Your task to perform on an android device: Do I have any events this weekend? Image 0: 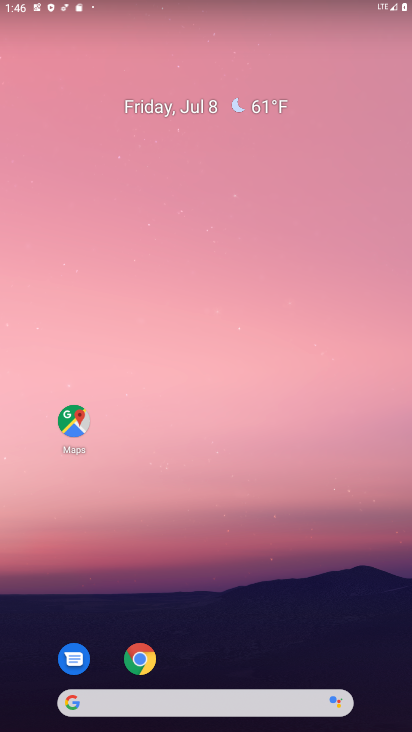
Step 0: drag from (221, 672) to (176, 128)
Your task to perform on an android device: Do I have any events this weekend? Image 1: 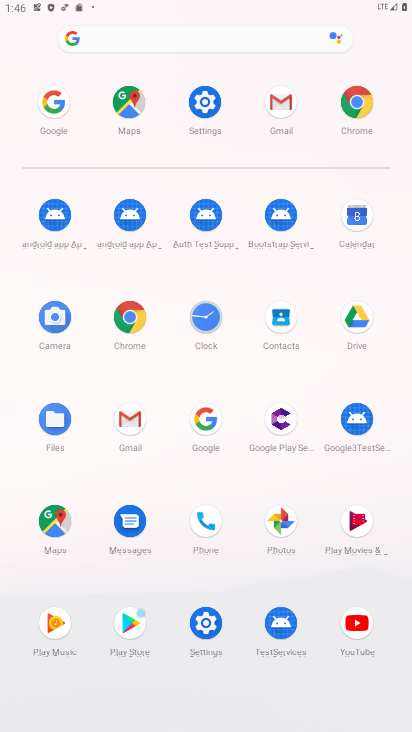
Step 1: click (350, 217)
Your task to perform on an android device: Do I have any events this weekend? Image 2: 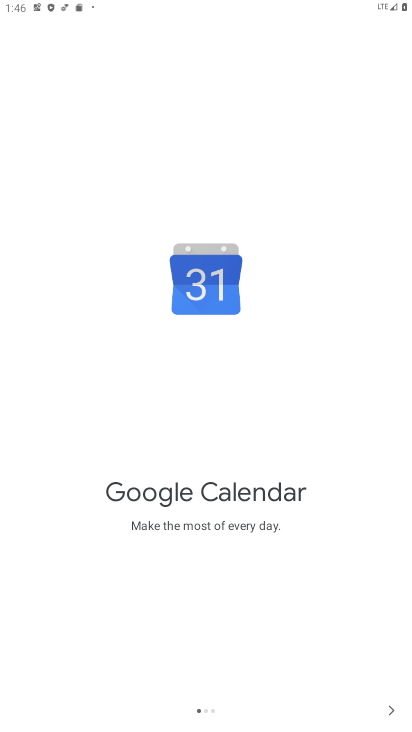
Step 2: click (391, 707)
Your task to perform on an android device: Do I have any events this weekend? Image 3: 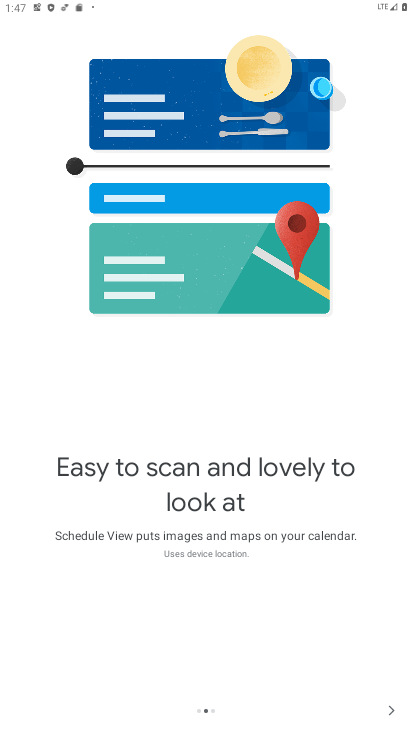
Step 3: click (392, 705)
Your task to perform on an android device: Do I have any events this weekend? Image 4: 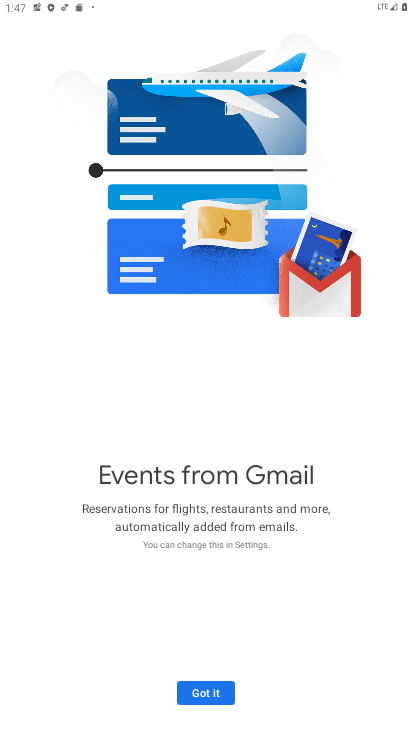
Step 4: click (206, 690)
Your task to perform on an android device: Do I have any events this weekend? Image 5: 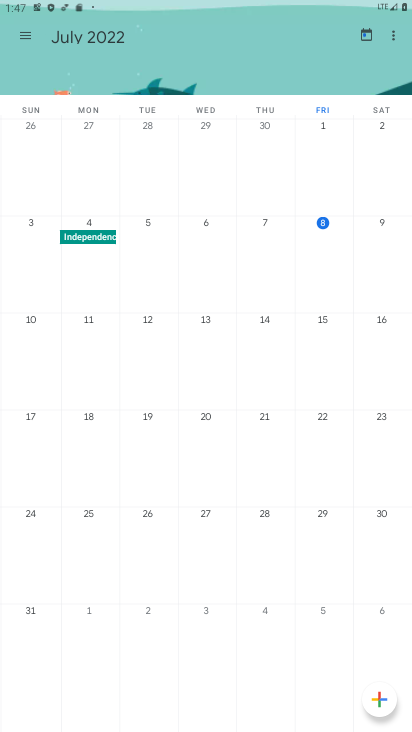
Step 5: click (17, 35)
Your task to perform on an android device: Do I have any events this weekend? Image 6: 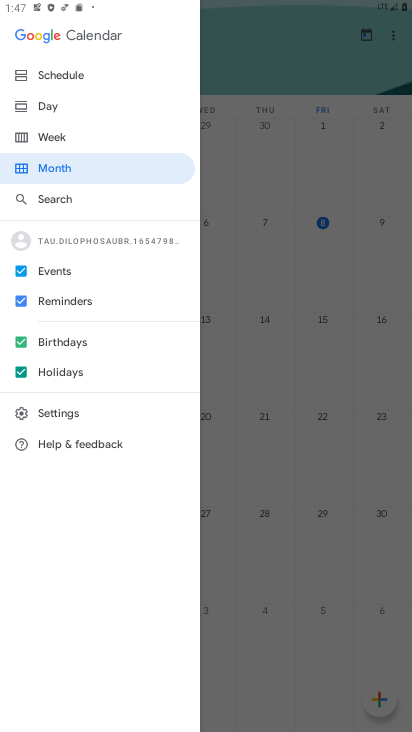
Step 6: click (41, 131)
Your task to perform on an android device: Do I have any events this weekend? Image 7: 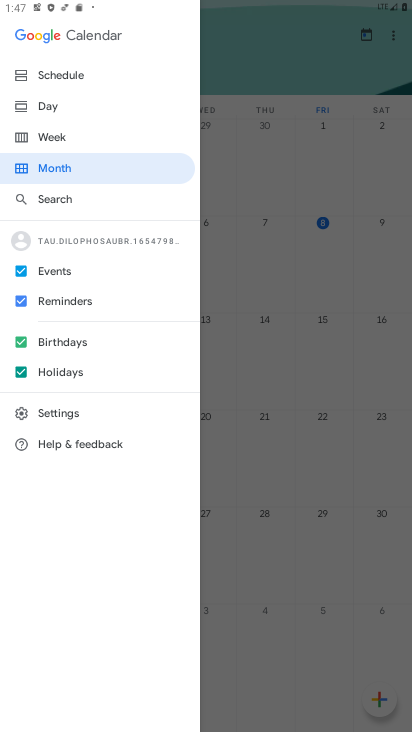
Step 7: click (41, 132)
Your task to perform on an android device: Do I have any events this weekend? Image 8: 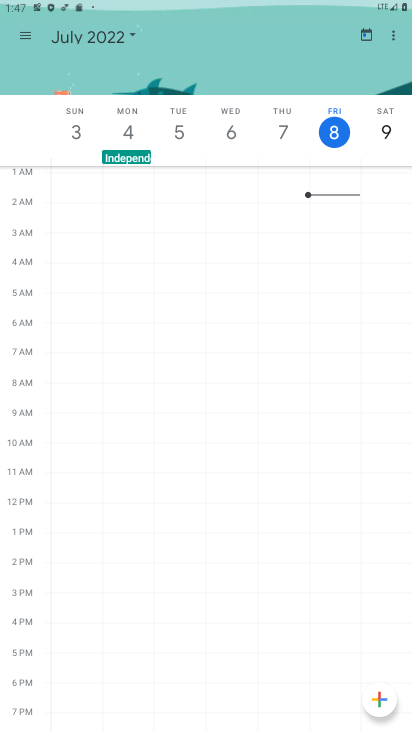
Step 8: task complete